Your task to perform on an android device: change alarm snooze length Image 0: 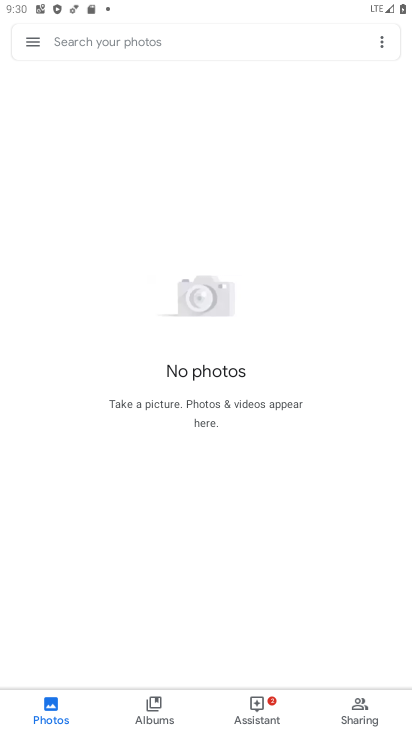
Step 0: press home button
Your task to perform on an android device: change alarm snooze length Image 1: 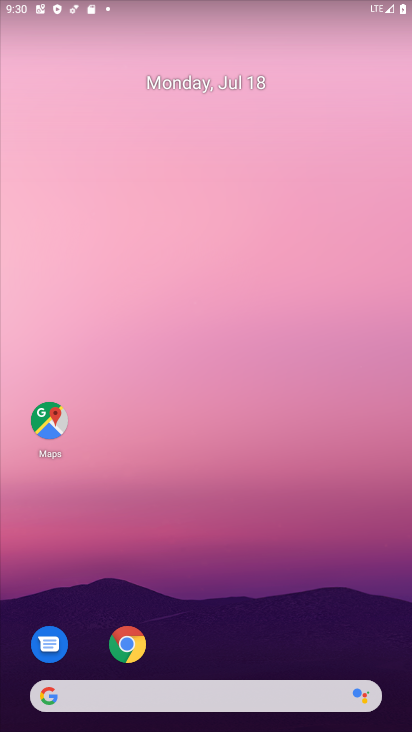
Step 1: drag from (206, 680) to (107, 4)
Your task to perform on an android device: change alarm snooze length Image 2: 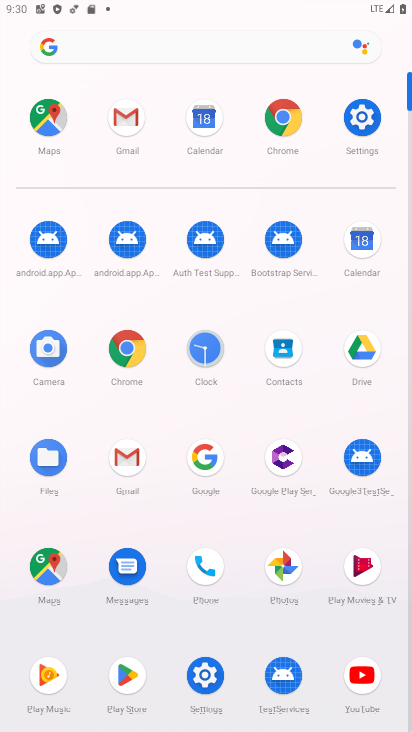
Step 2: click (209, 345)
Your task to perform on an android device: change alarm snooze length Image 3: 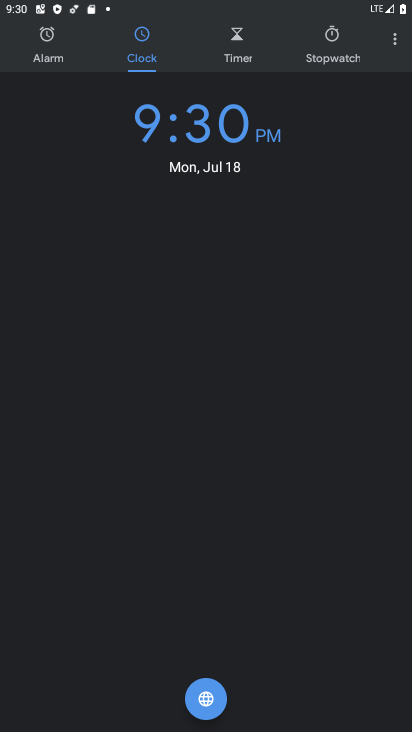
Step 3: drag from (398, 46) to (327, 91)
Your task to perform on an android device: change alarm snooze length Image 4: 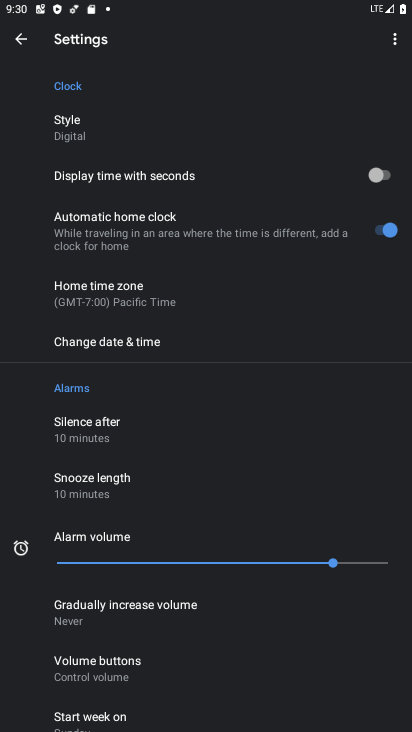
Step 4: click (124, 487)
Your task to perform on an android device: change alarm snooze length Image 5: 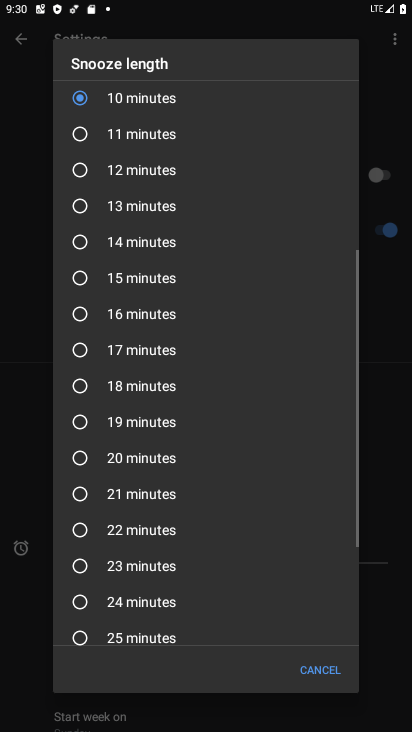
Step 5: click (128, 132)
Your task to perform on an android device: change alarm snooze length Image 6: 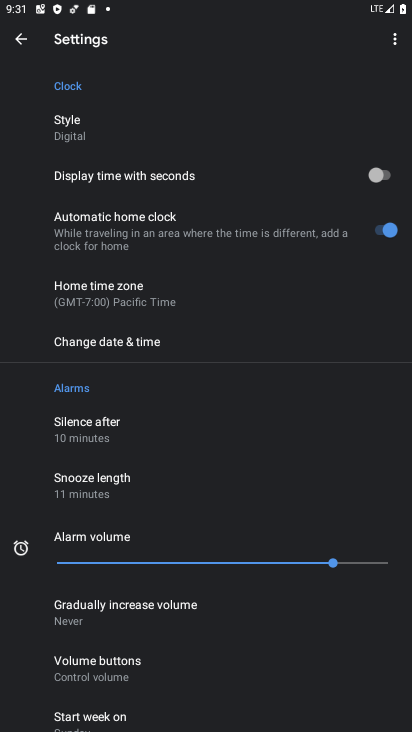
Step 6: task complete